Your task to perform on an android device: turn on translation in the chrome app Image 0: 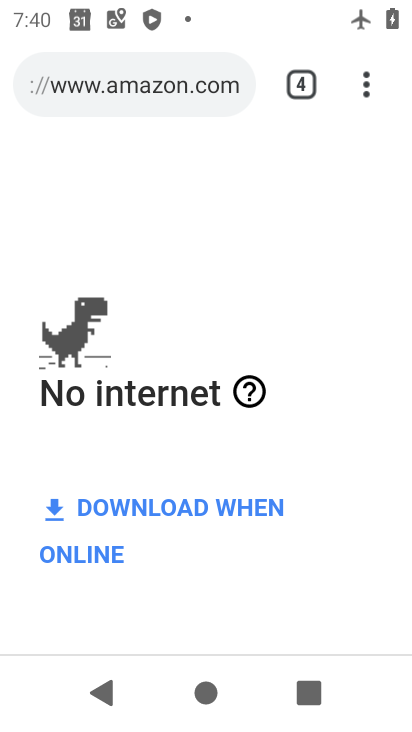
Step 0: press home button
Your task to perform on an android device: turn on translation in the chrome app Image 1: 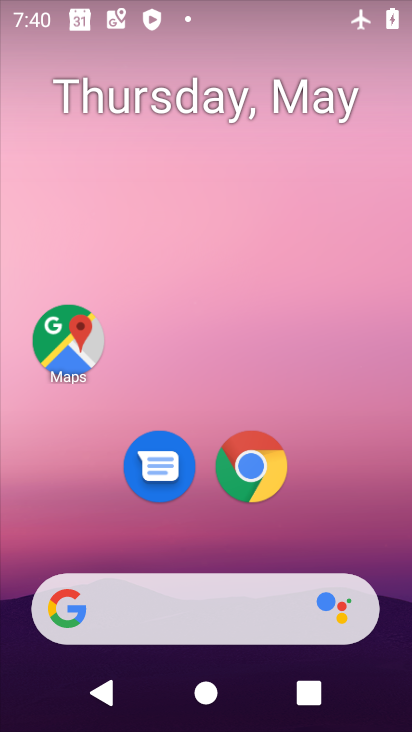
Step 1: click (257, 471)
Your task to perform on an android device: turn on translation in the chrome app Image 2: 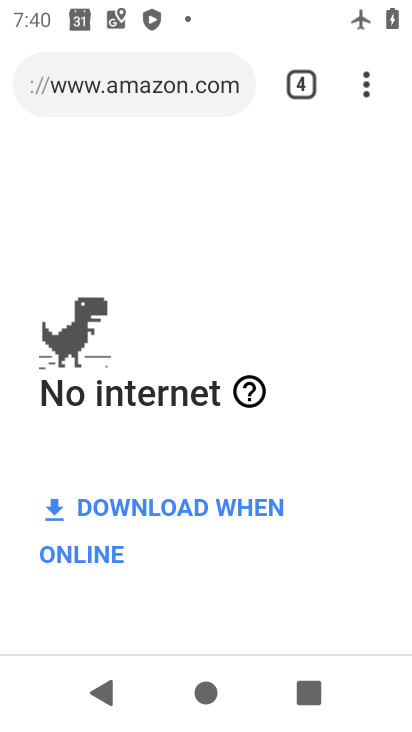
Step 2: click (365, 82)
Your task to perform on an android device: turn on translation in the chrome app Image 3: 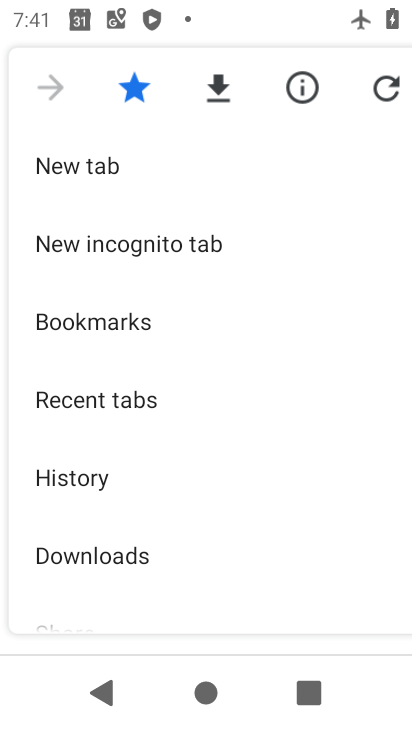
Step 3: drag from (221, 519) to (229, 282)
Your task to perform on an android device: turn on translation in the chrome app Image 4: 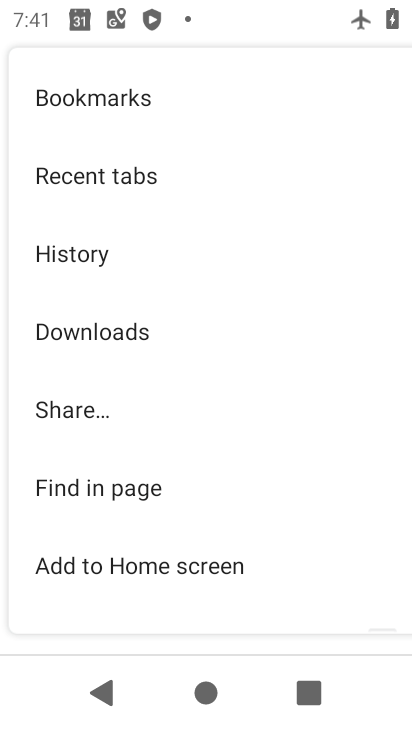
Step 4: drag from (218, 464) to (220, 205)
Your task to perform on an android device: turn on translation in the chrome app Image 5: 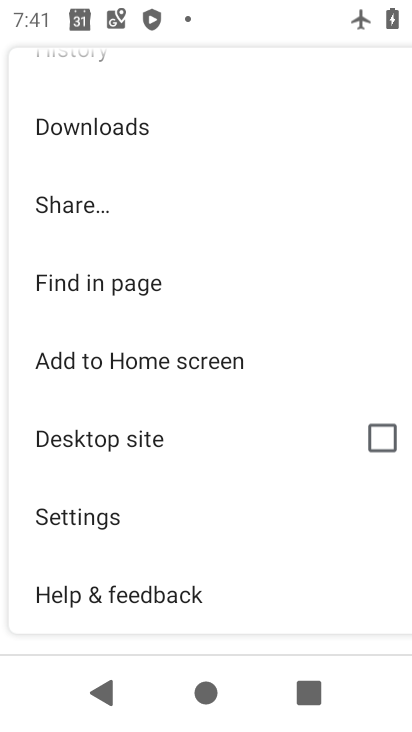
Step 5: click (92, 514)
Your task to perform on an android device: turn on translation in the chrome app Image 6: 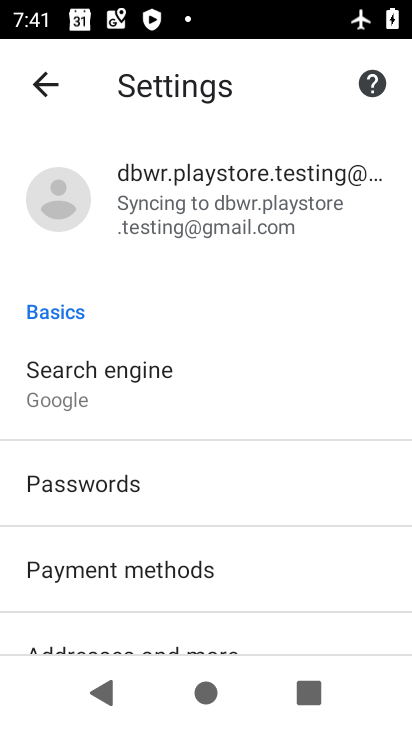
Step 6: drag from (249, 488) to (233, 190)
Your task to perform on an android device: turn on translation in the chrome app Image 7: 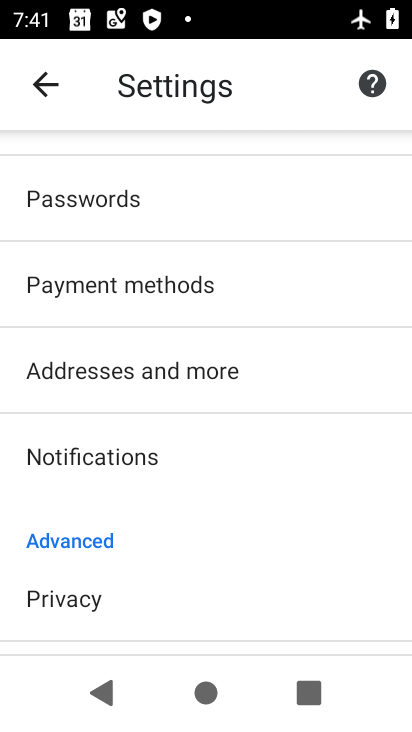
Step 7: drag from (282, 516) to (292, 199)
Your task to perform on an android device: turn on translation in the chrome app Image 8: 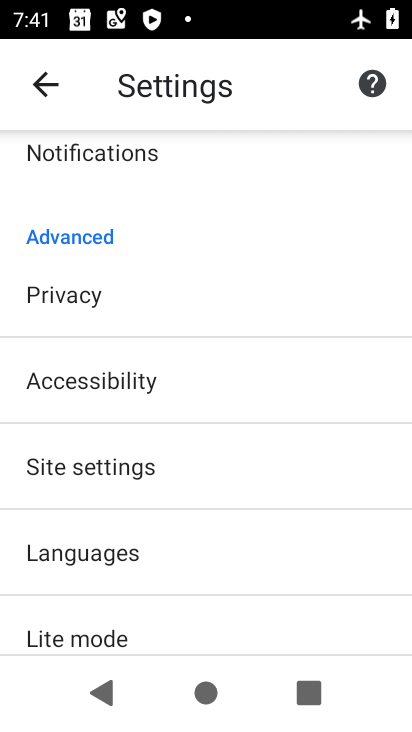
Step 8: click (99, 554)
Your task to perform on an android device: turn on translation in the chrome app Image 9: 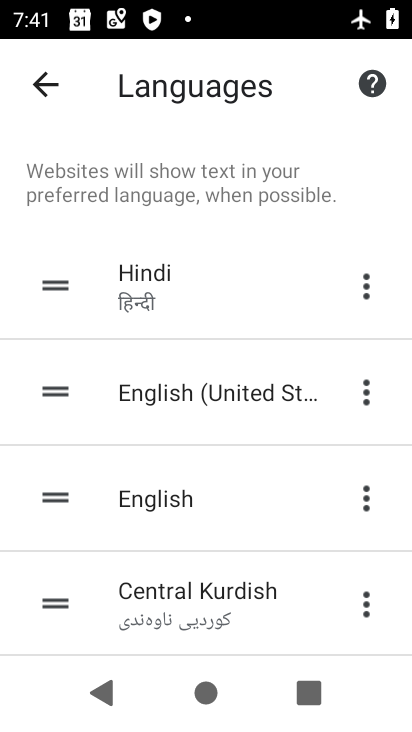
Step 9: drag from (219, 562) to (214, 233)
Your task to perform on an android device: turn on translation in the chrome app Image 10: 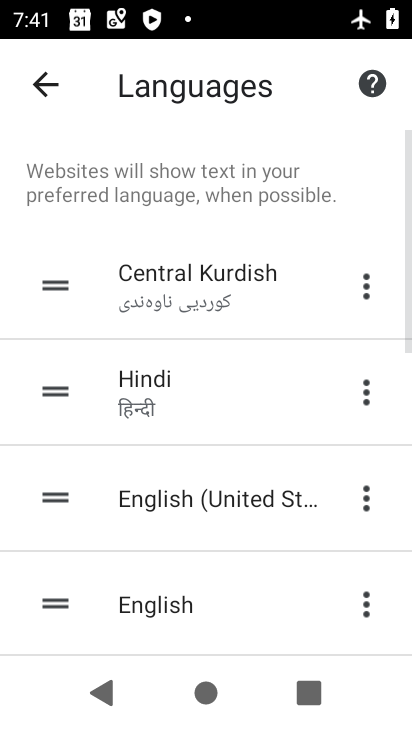
Step 10: drag from (271, 557) to (273, 247)
Your task to perform on an android device: turn on translation in the chrome app Image 11: 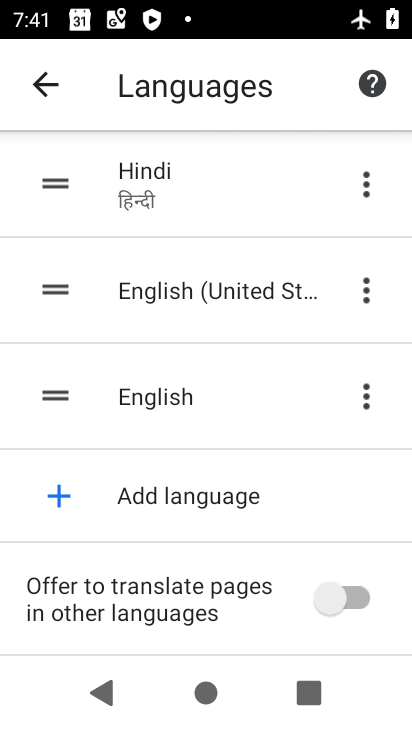
Step 11: click (341, 601)
Your task to perform on an android device: turn on translation in the chrome app Image 12: 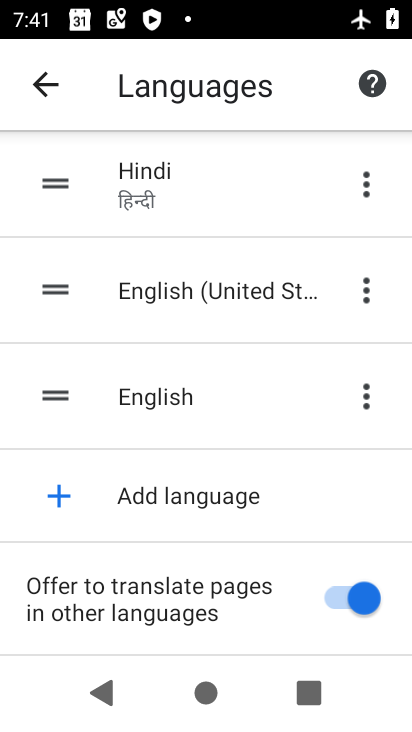
Step 12: task complete